Your task to perform on an android device: Search for "razer kraken" on bestbuy.com, select the first entry, add it to the cart, then select checkout. Image 0: 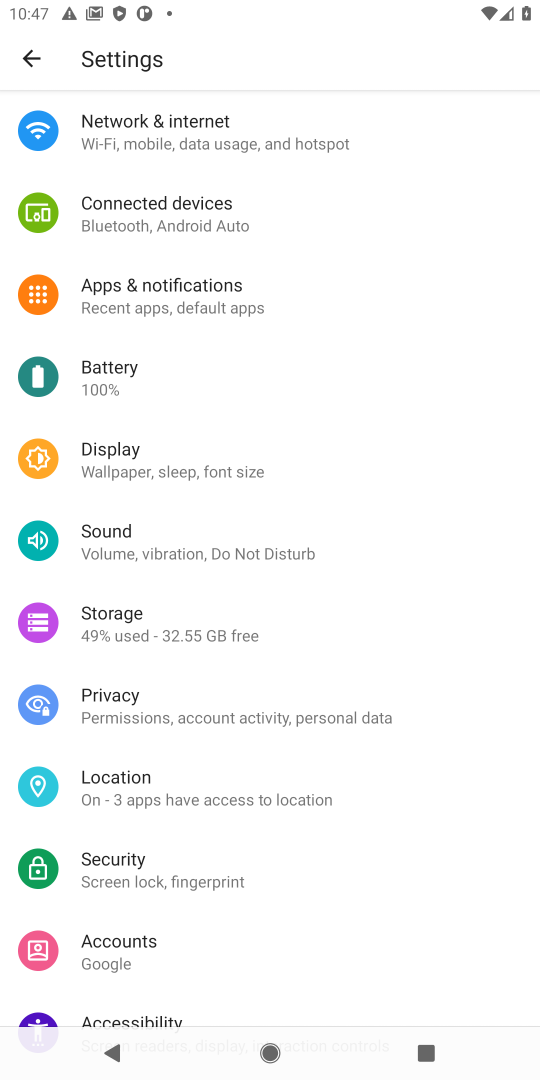
Step 0: press home button
Your task to perform on an android device: Search for "razer kraken" on bestbuy.com, select the first entry, add it to the cart, then select checkout. Image 1: 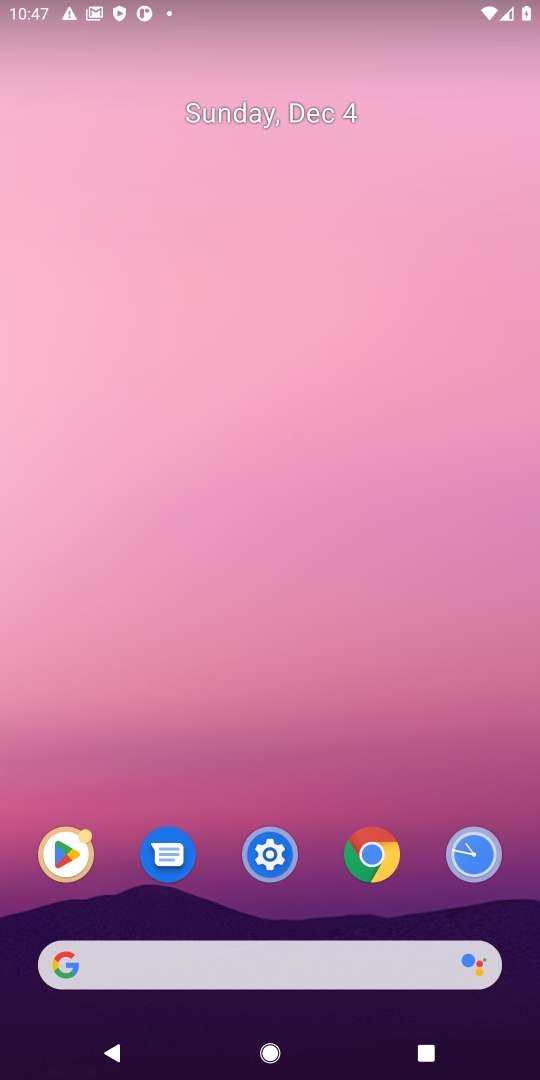
Step 1: click (313, 951)
Your task to perform on an android device: Search for "razer kraken" on bestbuy.com, select the first entry, add it to the cart, then select checkout. Image 2: 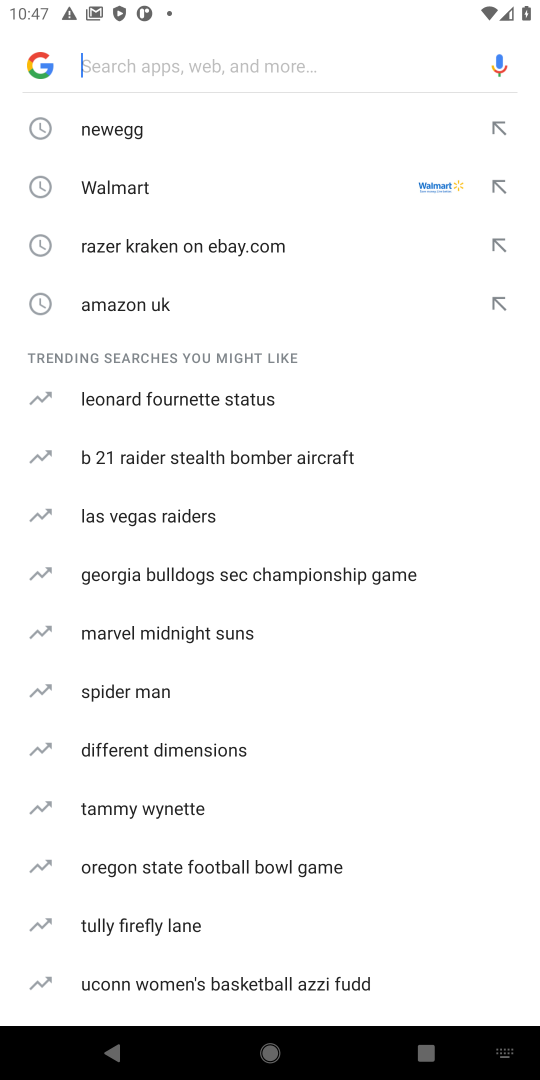
Step 2: type "bestbuy"
Your task to perform on an android device: Search for "razer kraken" on bestbuy.com, select the first entry, add it to the cart, then select checkout. Image 3: 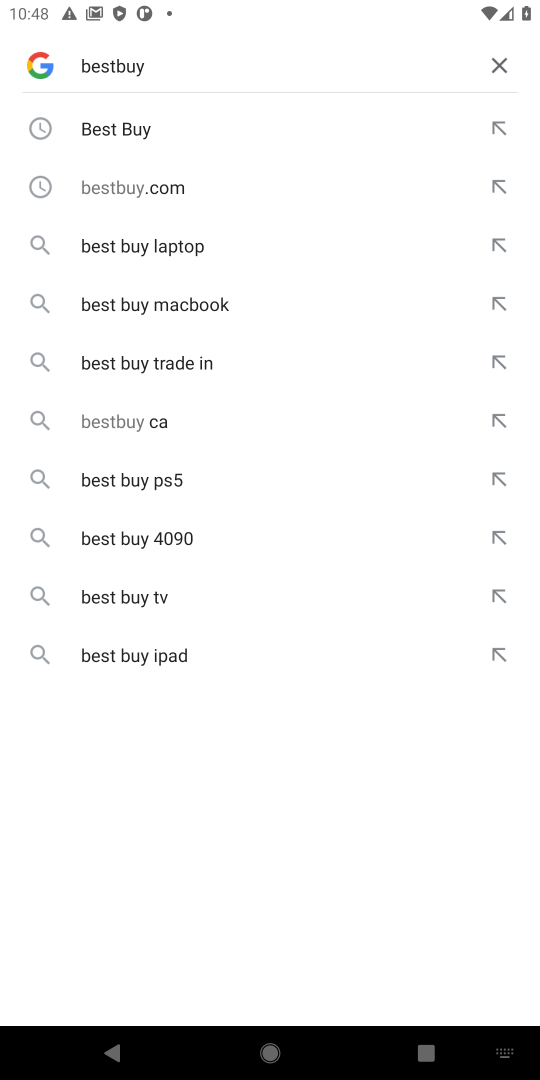
Step 3: click (144, 151)
Your task to perform on an android device: Search for "razer kraken" on bestbuy.com, select the first entry, add it to the cart, then select checkout. Image 4: 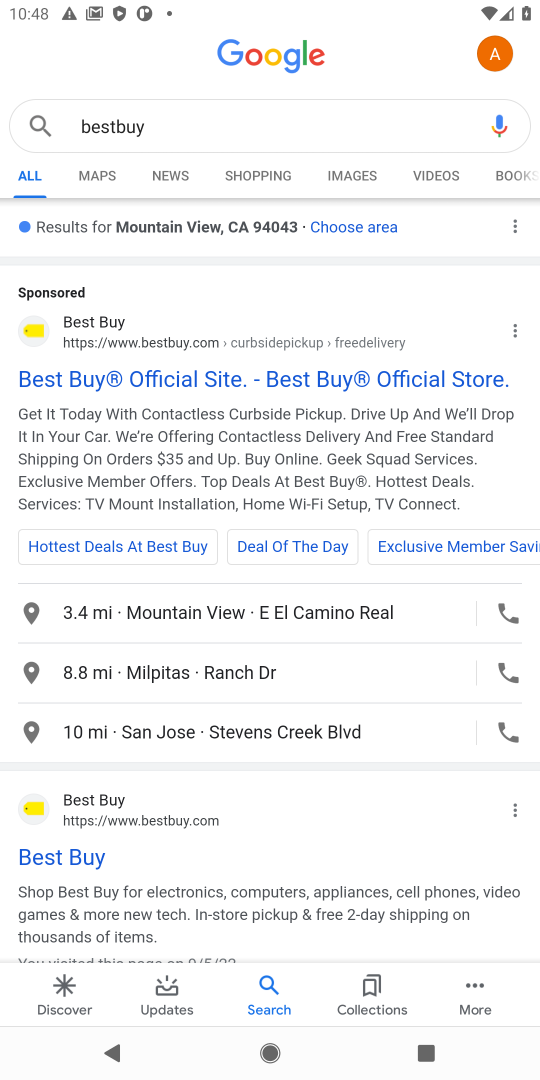
Step 4: click (135, 393)
Your task to perform on an android device: Search for "razer kraken" on bestbuy.com, select the first entry, add it to the cart, then select checkout. Image 5: 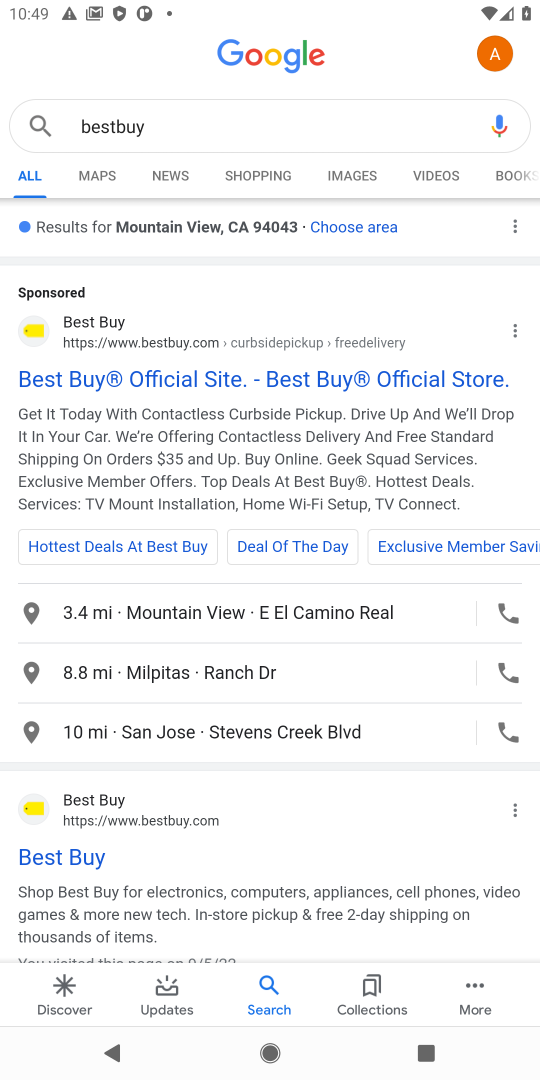
Step 5: task complete